Your task to perform on an android device: open app "Microsoft Authenticator" Image 0: 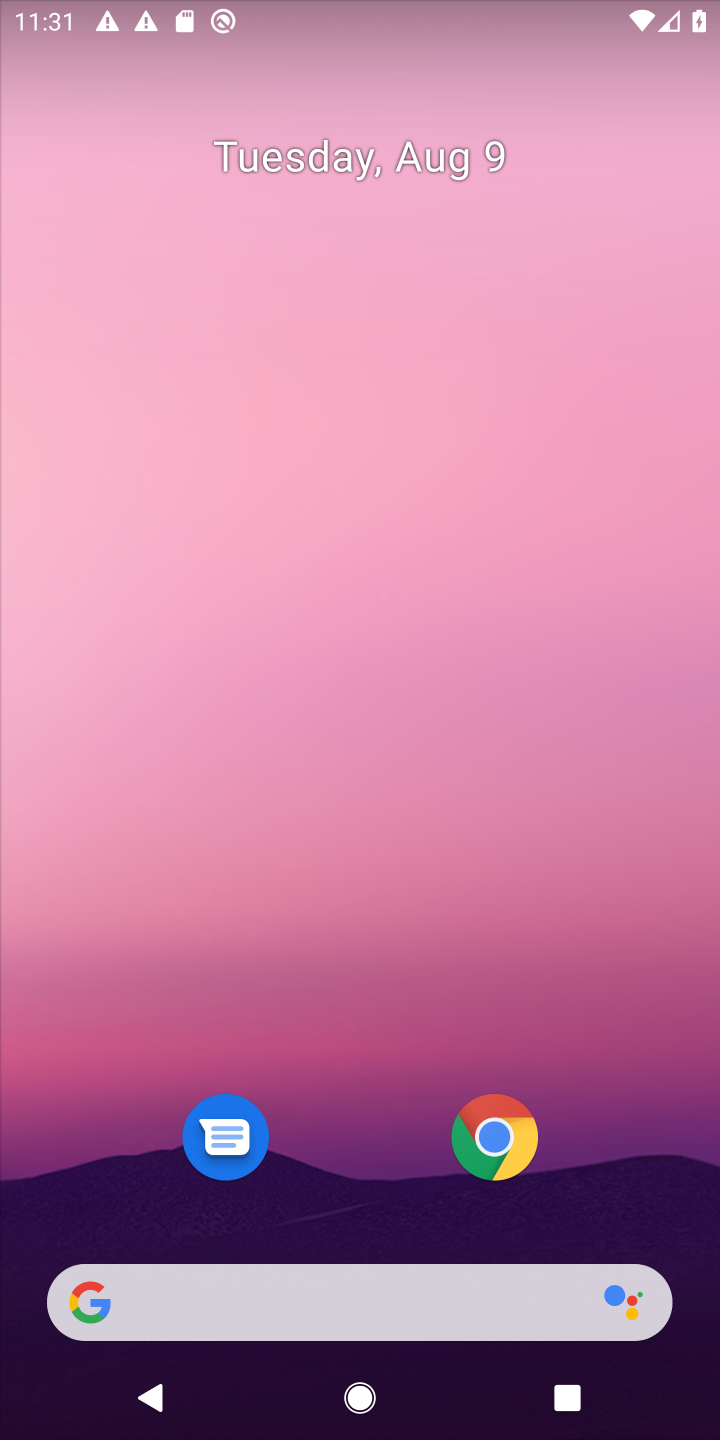
Step 0: drag from (376, 1215) to (36, 66)
Your task to perform on an android device: open app "Microsoft Authenticator" Image 1: 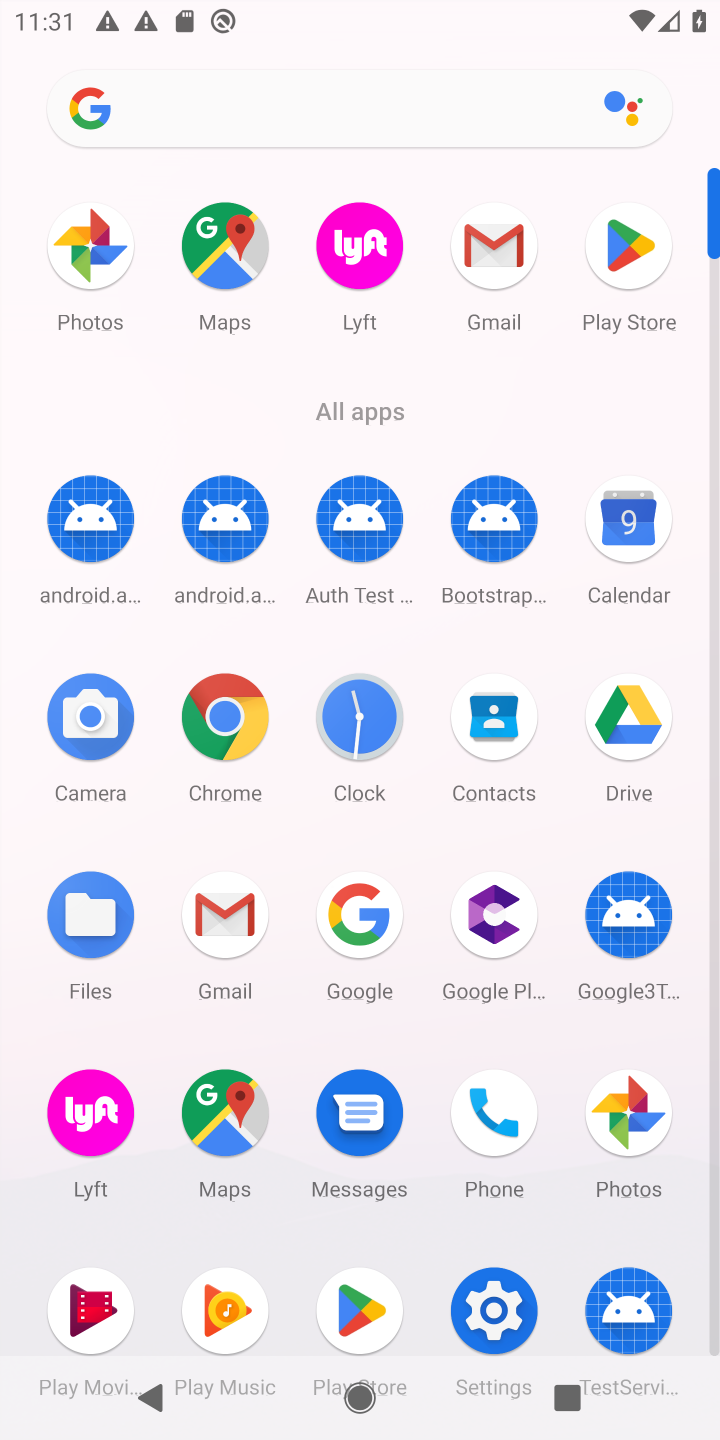
Step 1: click (623, 248)
Your task to perform on an android device: open app "Microsoft Authenticator" Image 2: 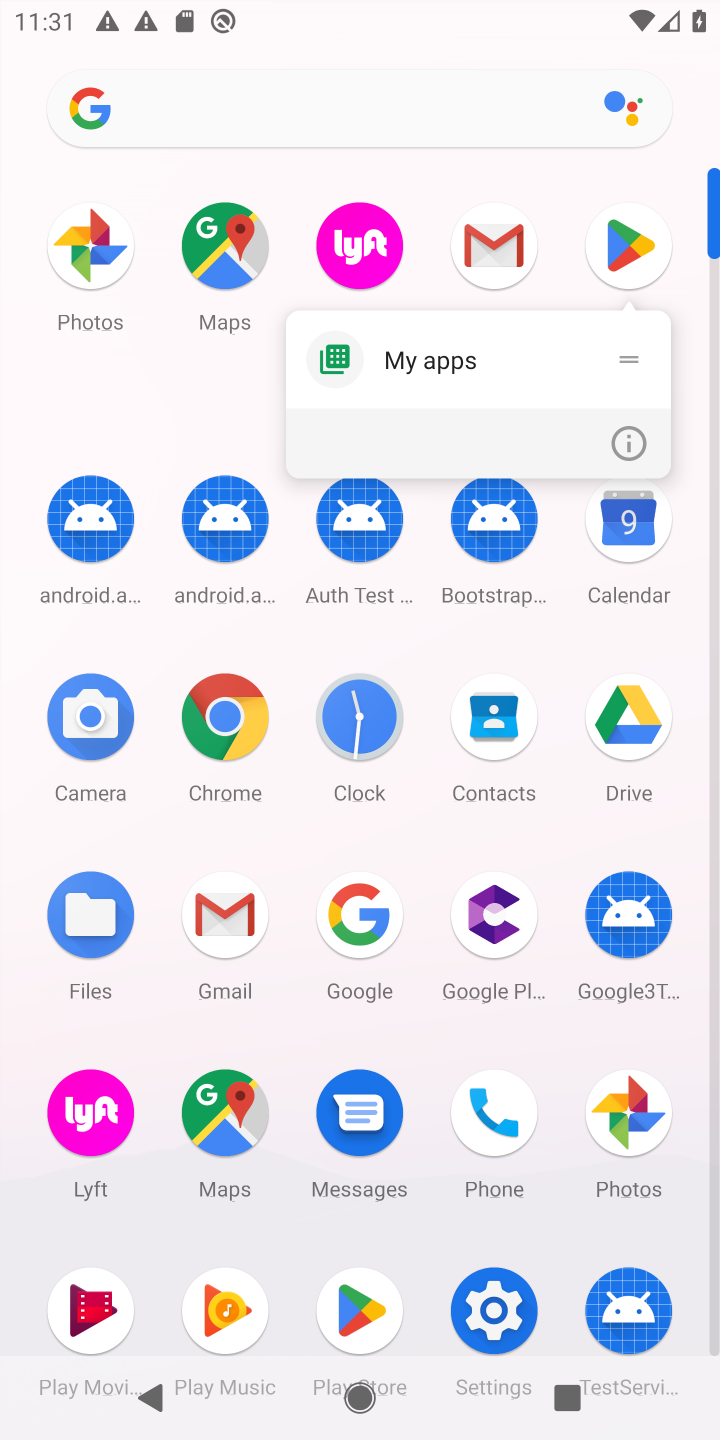
Step 2: click (624, 227)
Your task to perform on an android device: open app "Microsoft Authenticator" Image 3: 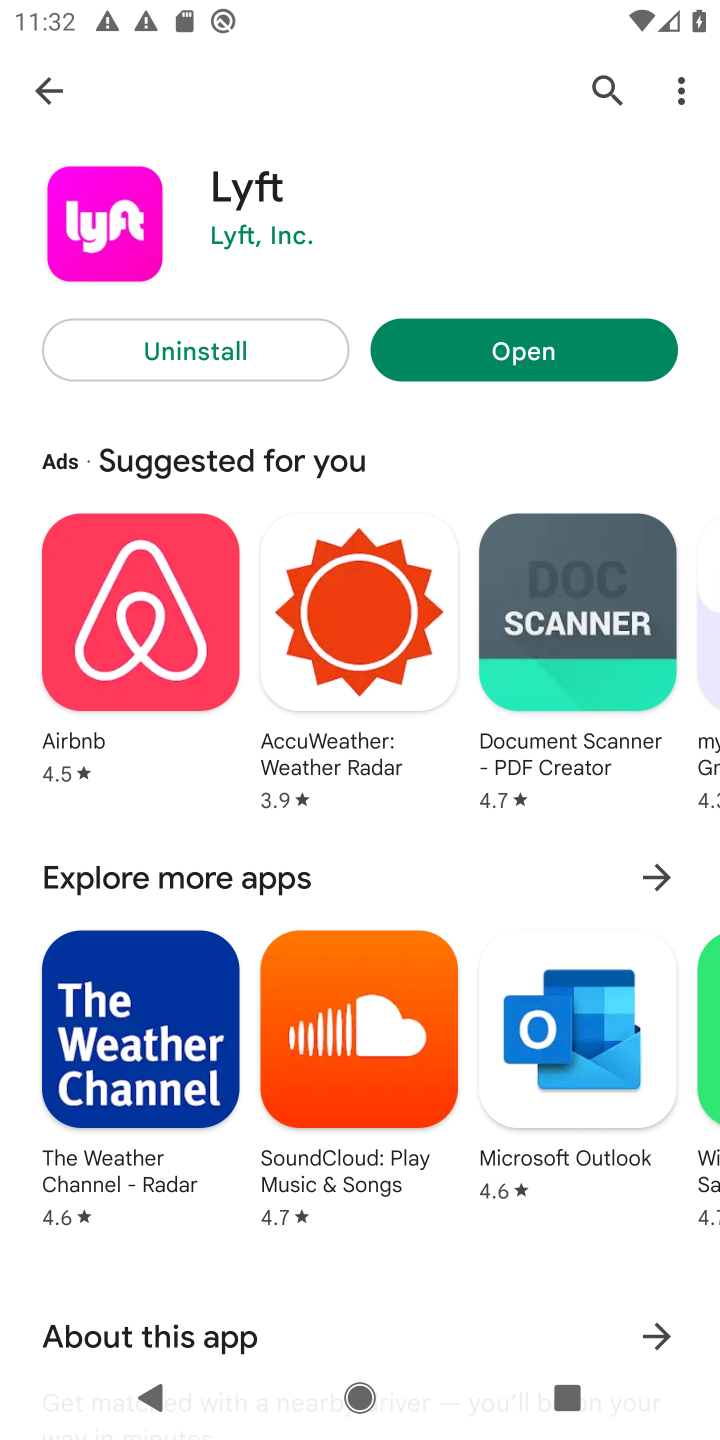
Step 3: click (615, 80)
Your task to perform on an android device: open app "Microsoft Authenticator" Image 4: 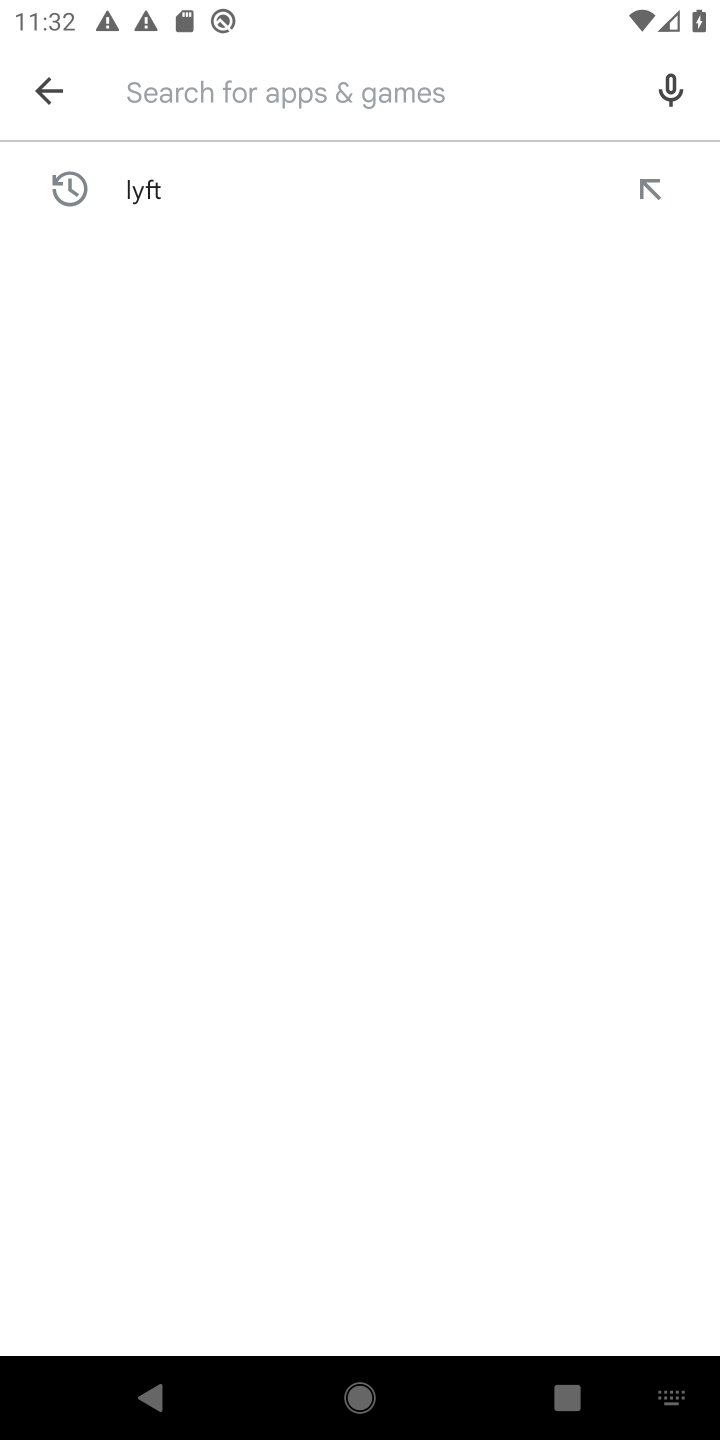
Step 4: type "Microsoft Authenticator"
Your task to perform on an android device: open app "Microsoft Authenticator" Image 5: 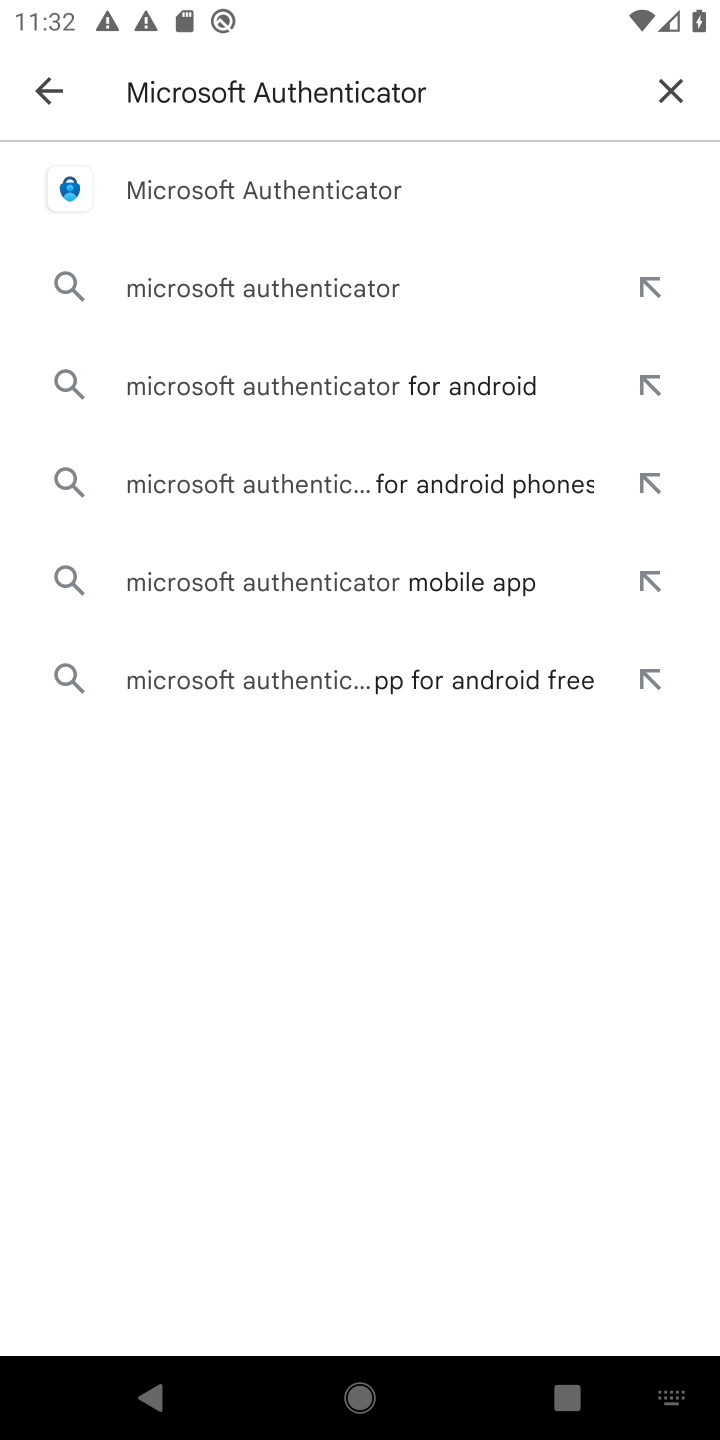
Step 5: click (274, 169)
Your task to perform on an android device: open app "Microsoft Authenticator" Image 6: 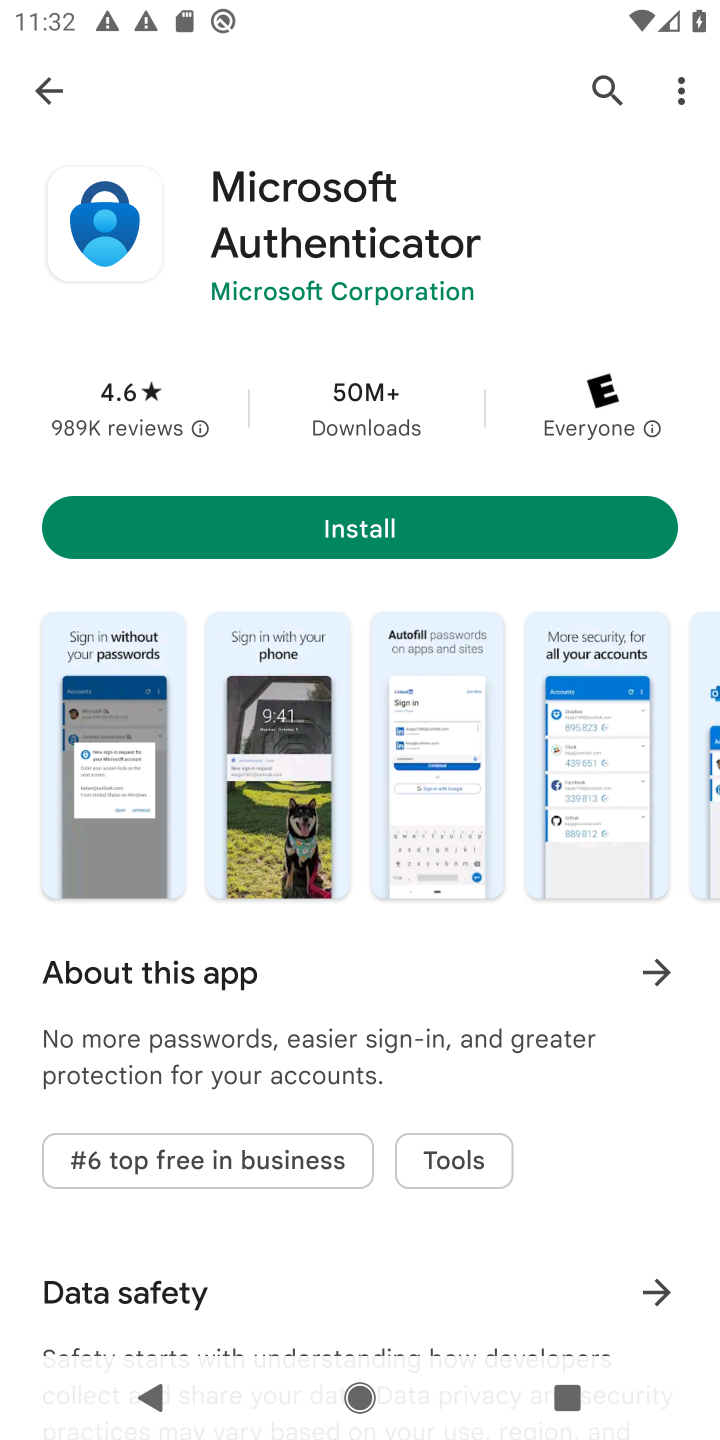
Step 6: task complete